Your task to perform on an android device: Open calendar and show me the second week of next month Image 0: 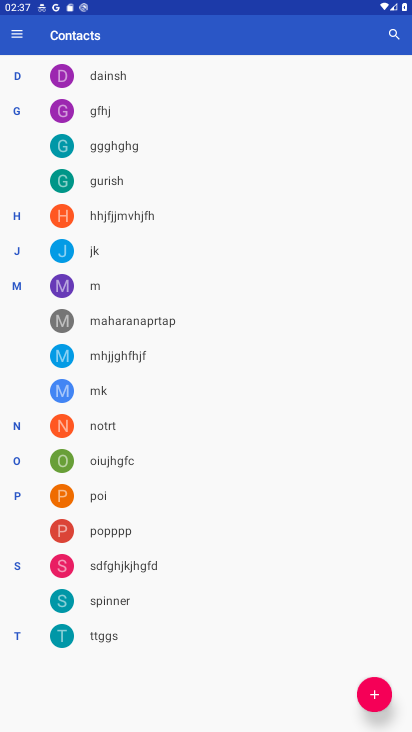
Step 0: press home button
Your task to perform on an android device: Open calendar and show me the second week of next month Image 1: 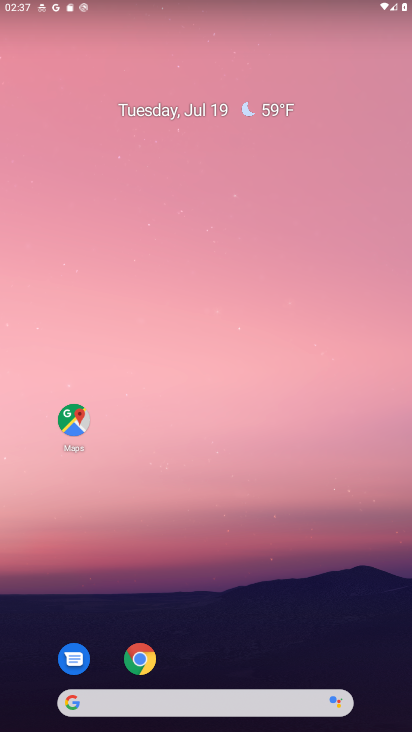
Step 1: drag from (194, 518) to (219, 156)
Your task to perform on an android device: Open calendar and show me the second week of next month Image 2: 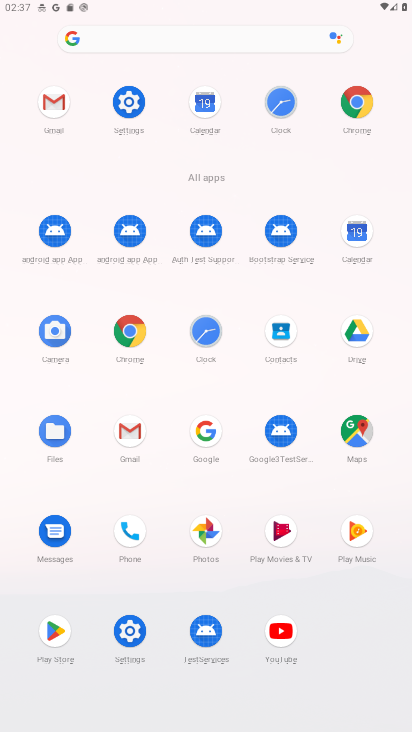
Step 2: click (360, 233)
Your task to perform on an android device: Open calendar and show me the second week of next month Image 3: 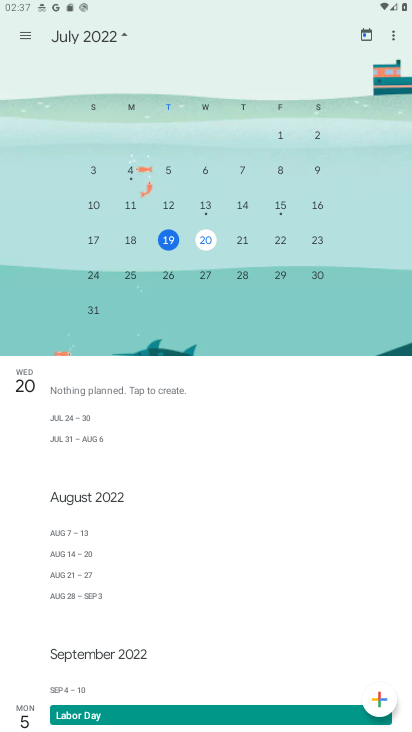
Step 3: drag from (345, 227) to (13, 265)
Your task to perform on an android device: Open calendar and show me the second week of next month Image 4: 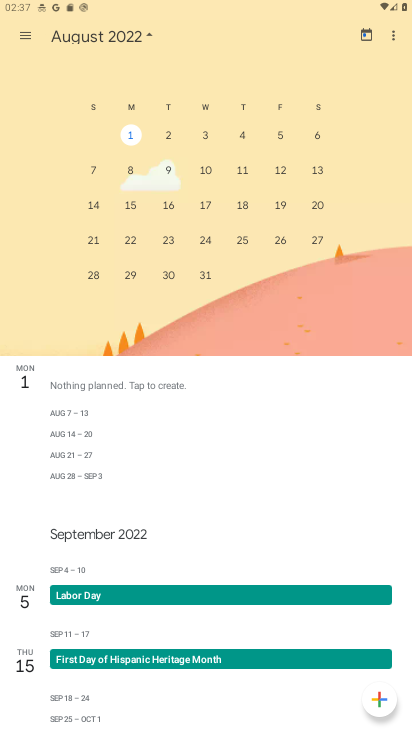
Step 4: click (92, 173)
Your task to perform on an android device: Open calendar and show me the second week of next month Image 5: 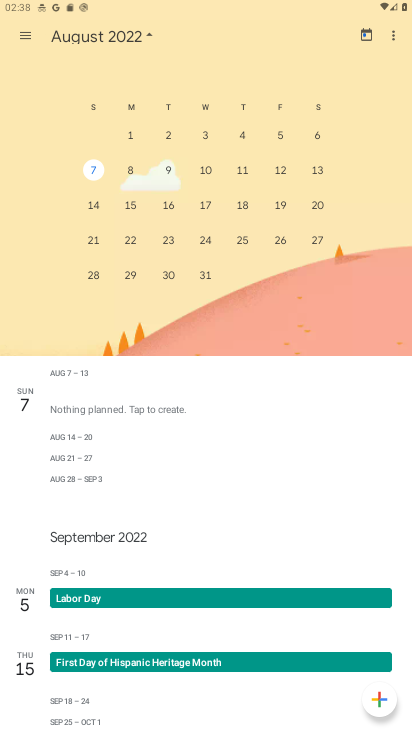
Step 5: task complete